Your task to perform on an android device: check google app version Image 0: 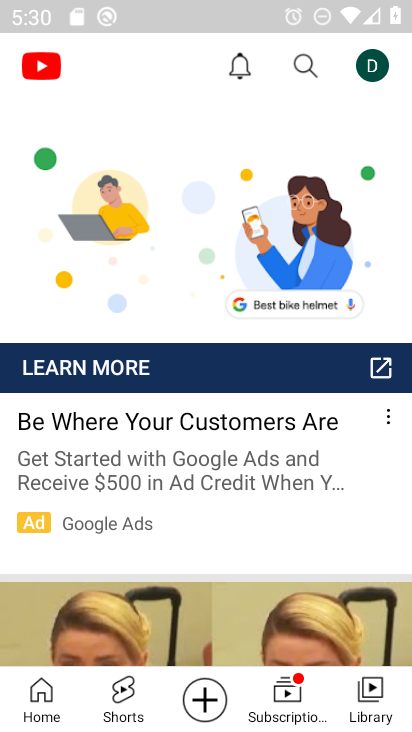
Step 0: press back button
Your task to perform on an android device: check google app version Image 1: 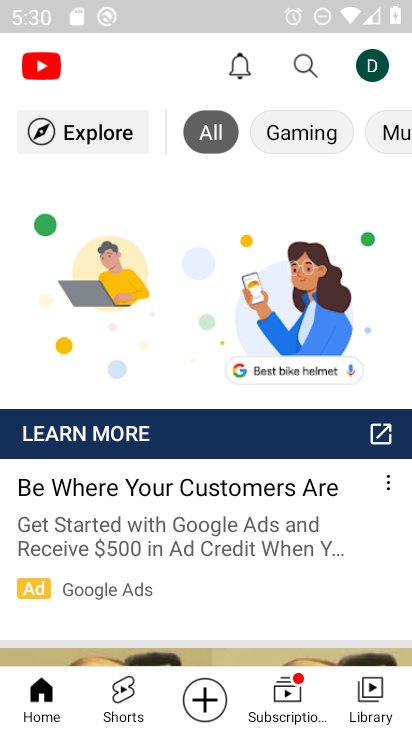
Step 1: press home button
Your task to perform on an android device: check google app version Image 2: 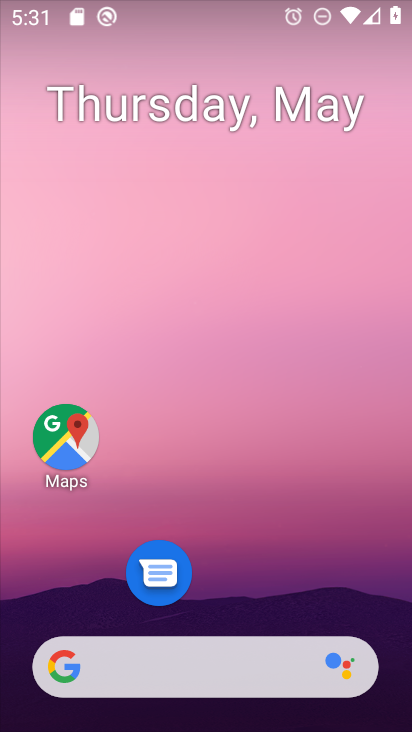
Step 2: click (220, 19)
Your task to perform on an android device: check google app version Image 3: 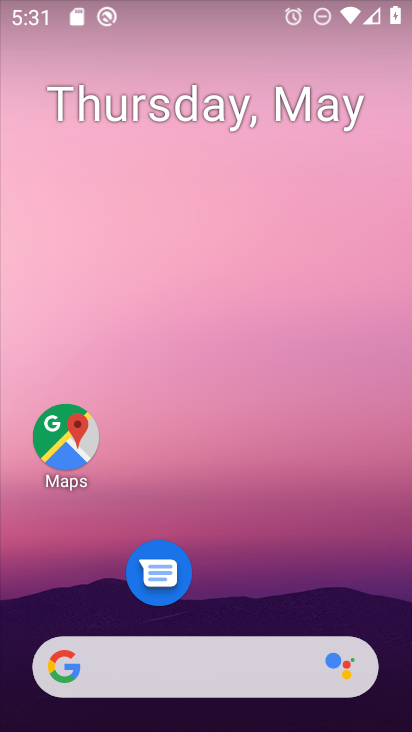
Step 3: drag from (245, 601) to (181, 216)
Your task to perform on an android device: check google app version Image 4: 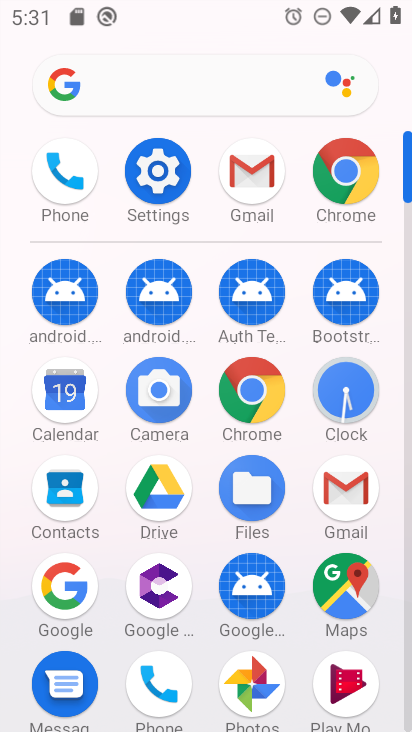
Step 4: click (73, 604)
Your task to perform on an android device: check google app version Image 5: 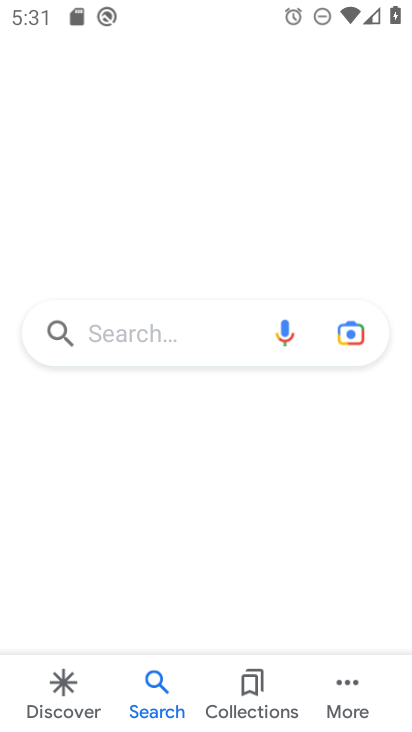
Step 5: click (352, 717)
Your task to perform on an android device: check google app version Image 6: 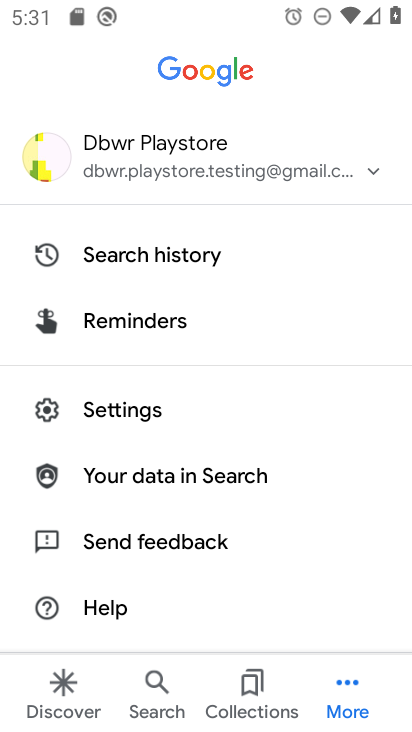
Step 6: click (108, 416)
Your task to perform on an android device: check google app version Image 7: 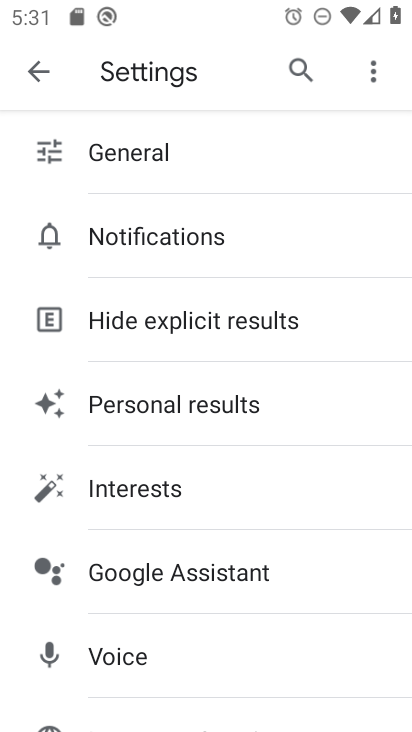
Step 7: drag from (207, 684) to (195, 396)
Your task to perform on an android device: check google app version Image 8: 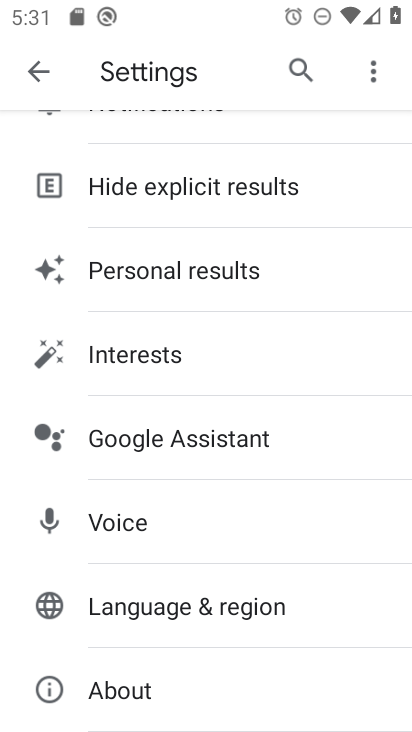
Step 8: click (119, 687)
Your task to perform on an android device: check google app version Image 9: 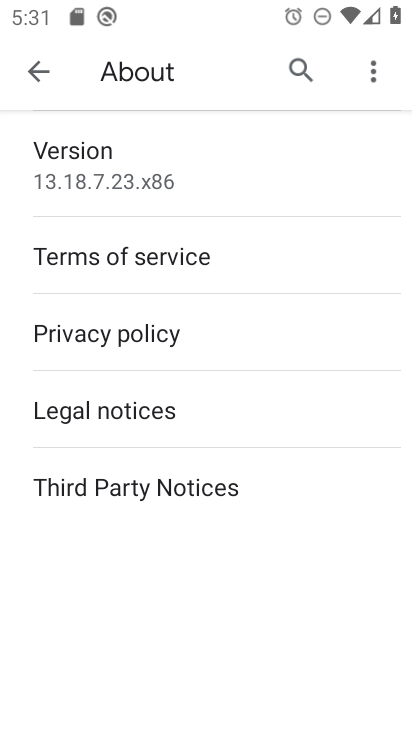
Step 9: task complete